Your task to perform on an android device: Set the phone to "Do not disturb". Image 0: 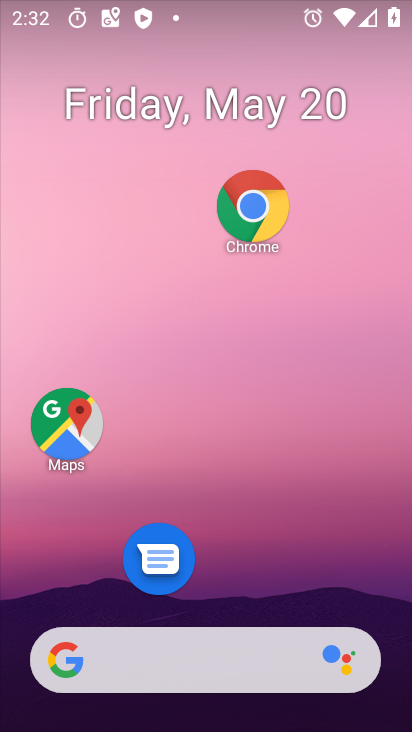
Step 0: drag from (232, 623) to (148, 123)
Your task to perform on an android device: Set the phone to "Do not disturb". Image 1: 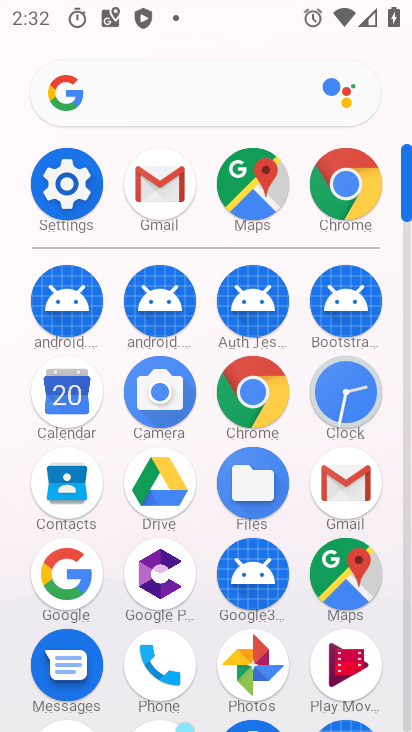
Step 1: drag from (149, 14) to (240, 615)
Your task to perform on an android device: Set the phone to "Do not disturb". Image 2: 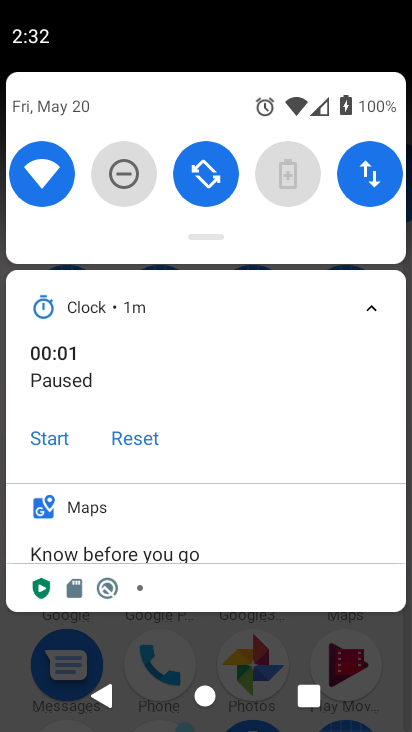
Step 2: click (114, 178)
Your task to perform on an android device: Set the phone to "Do not disturb". Image 3: 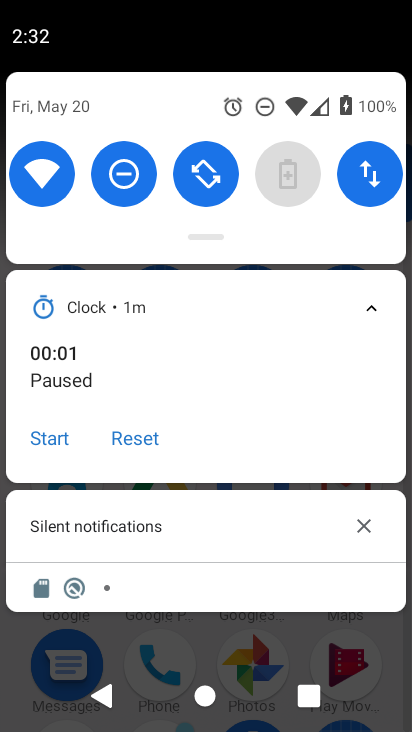
Step 3: task complete